Your task to perform on an android device: Open Android settings Image 0: 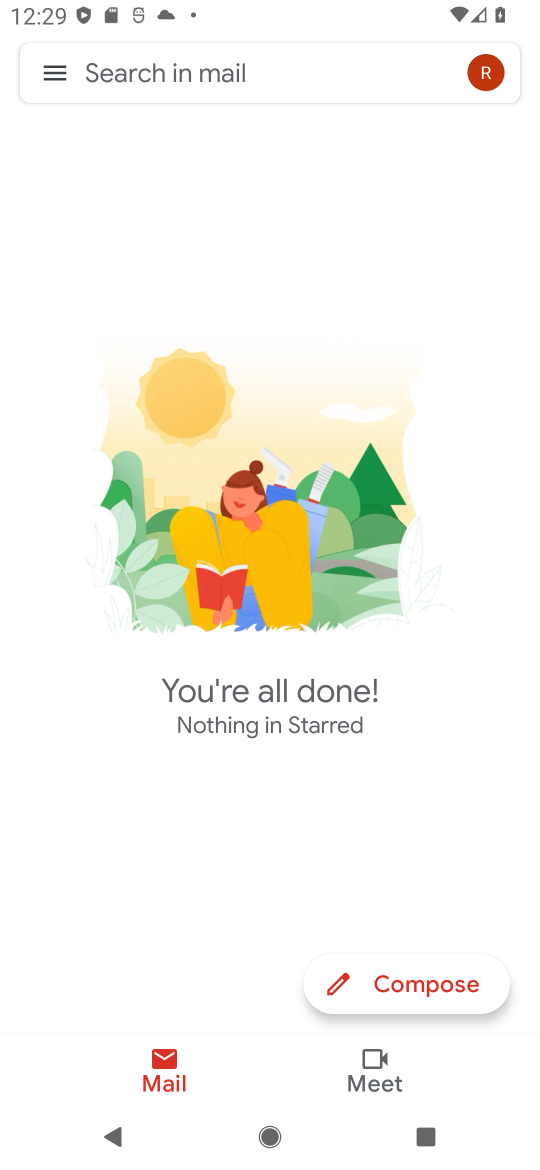
Step 0: press home button
Your task to perform on an android device: Open Android settings Image 1: 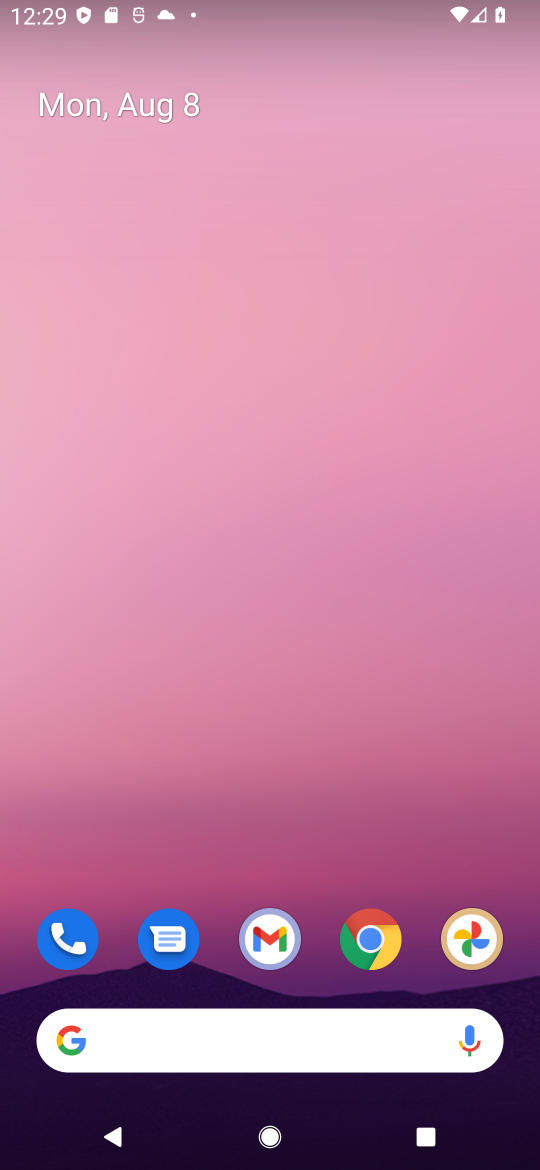
Step 1: drag from (245, 1066) to (278, 233)
Your task to perform on an android device: Open Android settings Image 2: 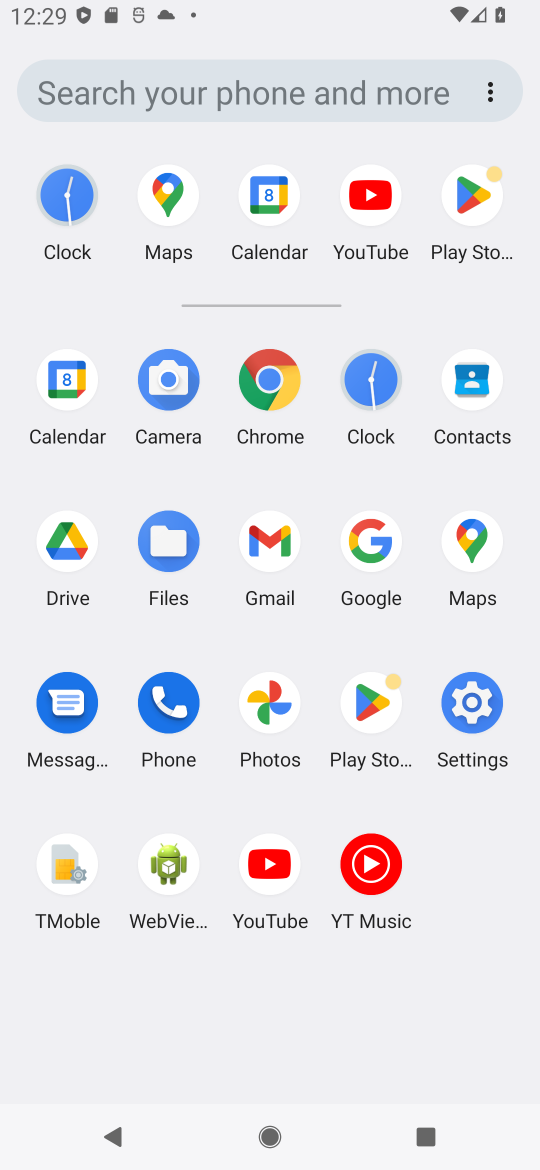
Step 2: click (470, 704)
Your task to perform on an android device: Open Android settings Image 3: 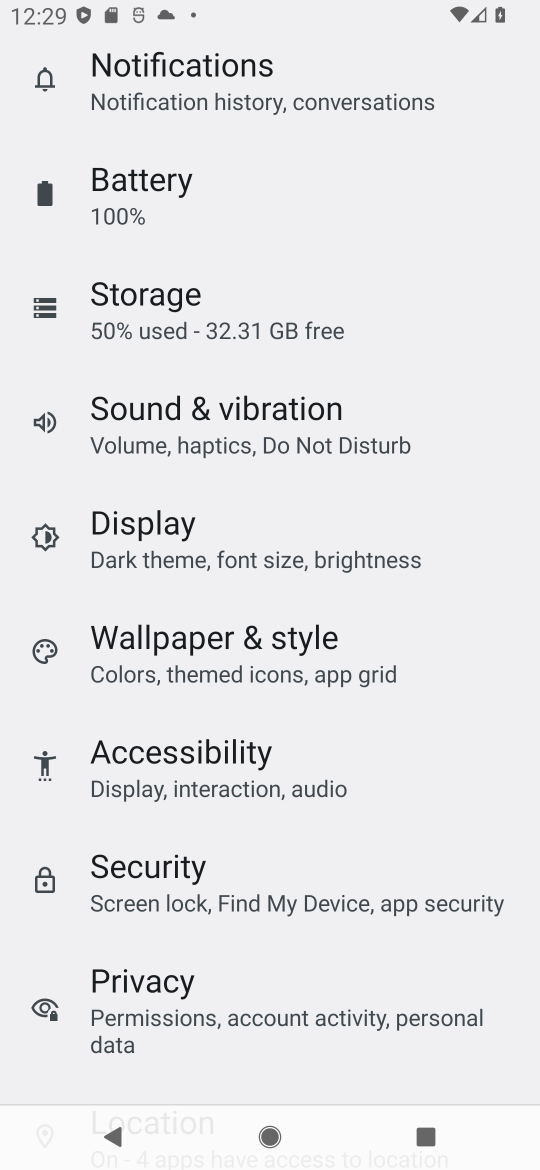
Step 3: task complete